Your task to perform on an android device: Open display settings Image 0: 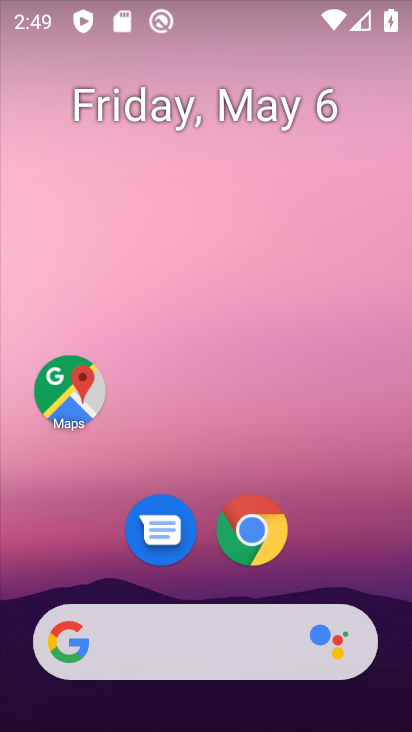
Step 0: drag from (272, 610) to (272, 91)
Your task to perform on an android device: Open display settings Image 1: 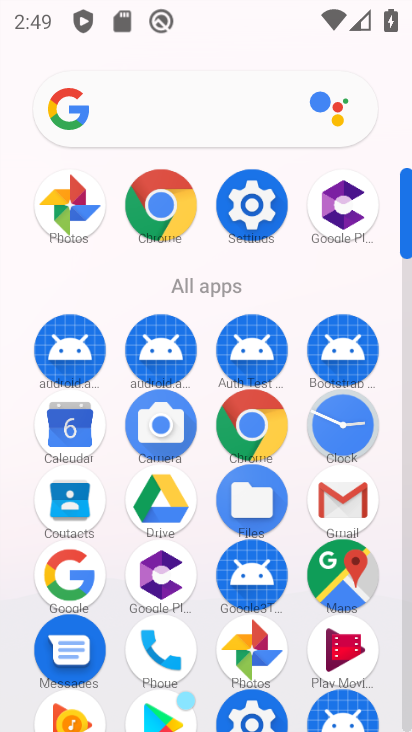
Step 1: drag from (336, 442) to (327, 222)
Your task to perform on an android device: Open display settings Image 2: 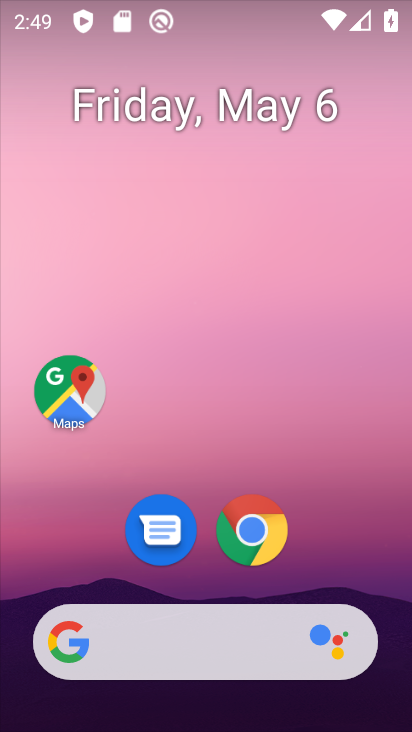
Step 2: drag from (302, 560) to (212, 36)
Your task to perform on an android device: Open display settings Image 3: 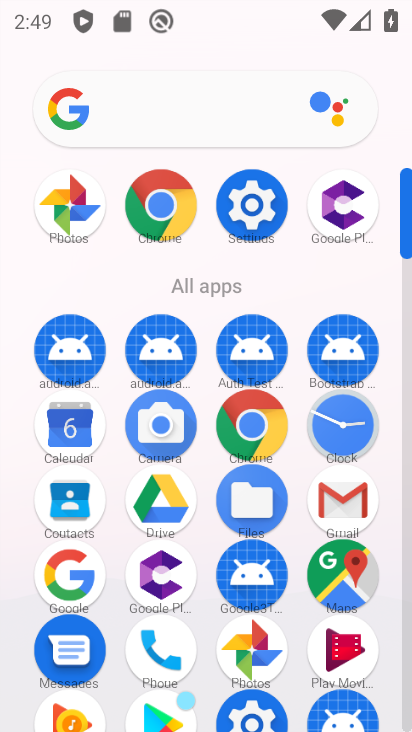
Step 3: click (264, 209)
Your task to perform on an android device: Open display settings Image 4: 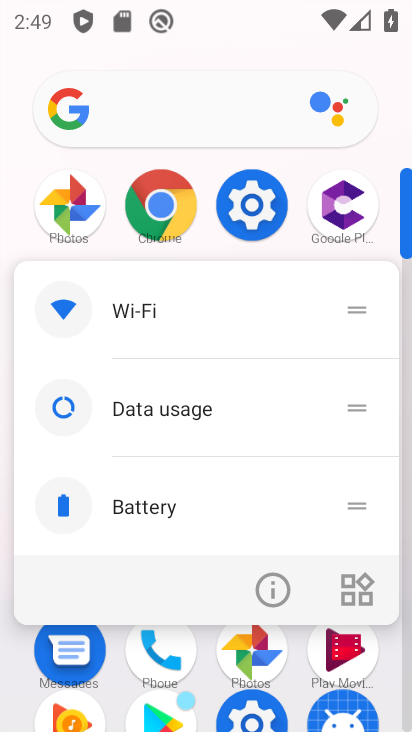
Step 4: click (275, 224)
Your task to perform on an android device: Open display settings Image 5: 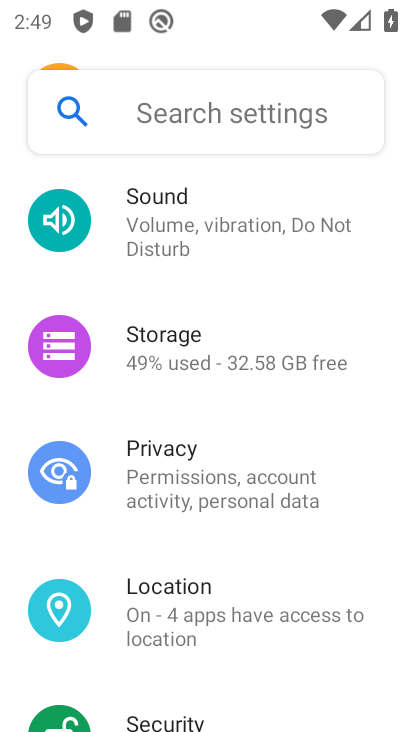
Step 5: drag from (216, 554) to (233, 258)
Your task to perform on an android device: Open display settings Image 6: 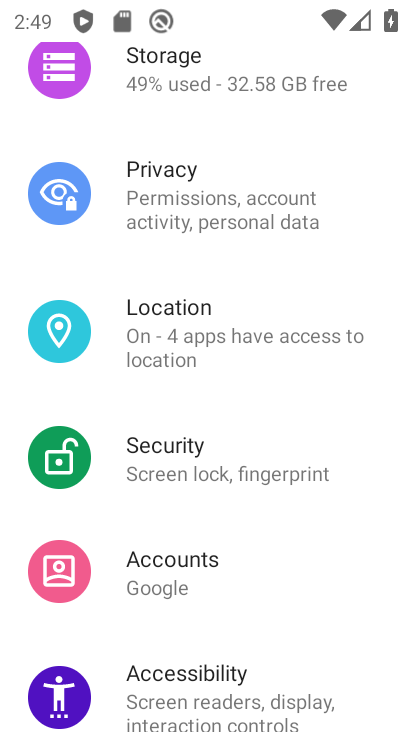
Step 6: drag from (231, 269) to (226, 605)
Your task to perform on an android device: Open display settings Image 7: 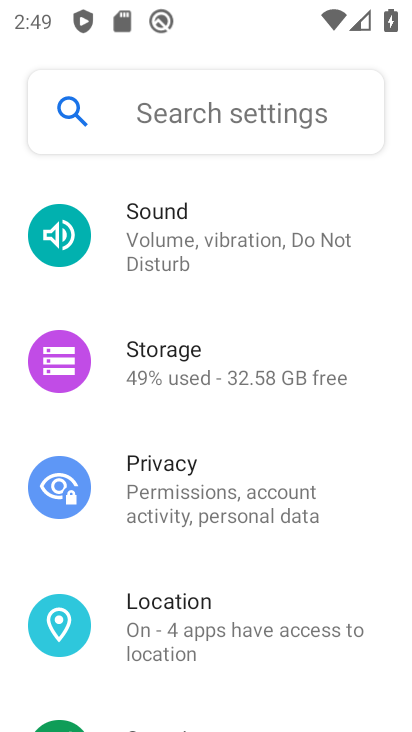
Step 7: drag from (223, 318) to (197, 531)
Your task to perform on an android device: Open display settings Image 8: 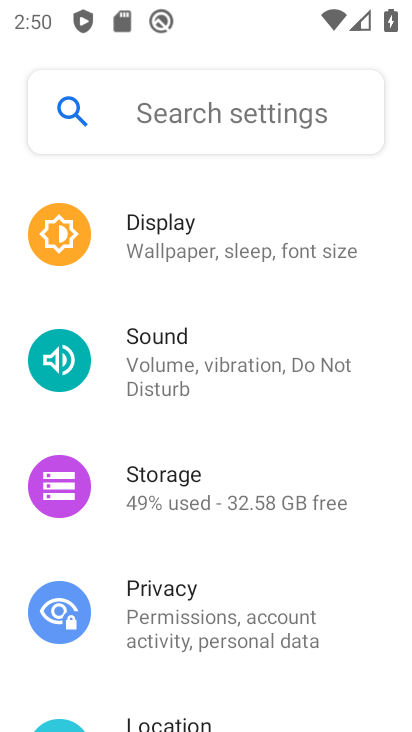
Step 8: click (192, 548)
Your task to perform on an android device: Open display settings Image 9: 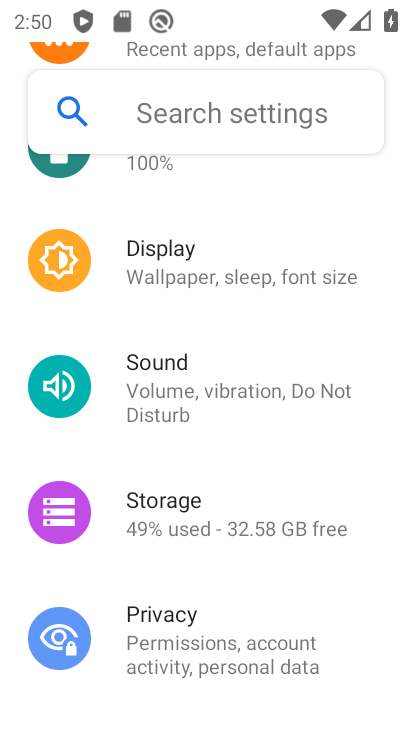
Step 9: click (204, 265)
Your task to perform on an android device: Open display settings Image 10: 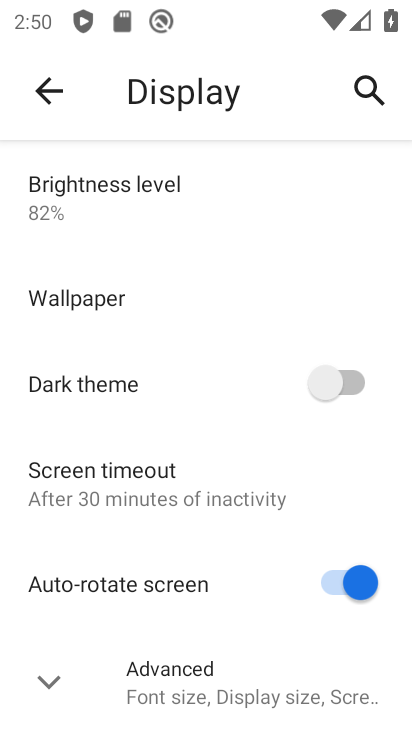
Step 10: task complete